Your task to perform on an android device: turn on javascript in the chrome app Image 0: 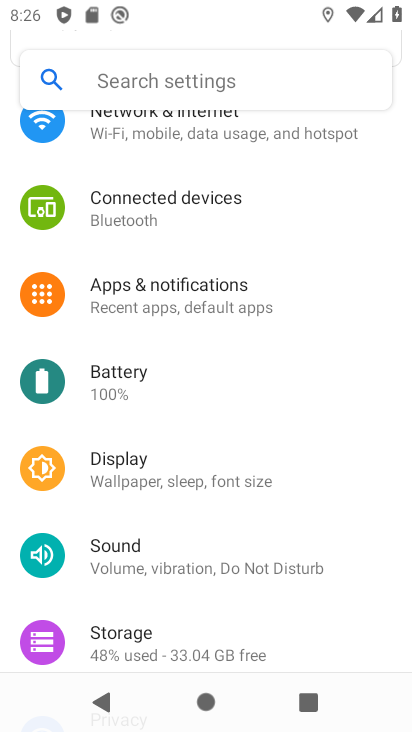
Step 0: press home button
Your task to perform on an android device: turn on javascript in the chrome app Image 1: 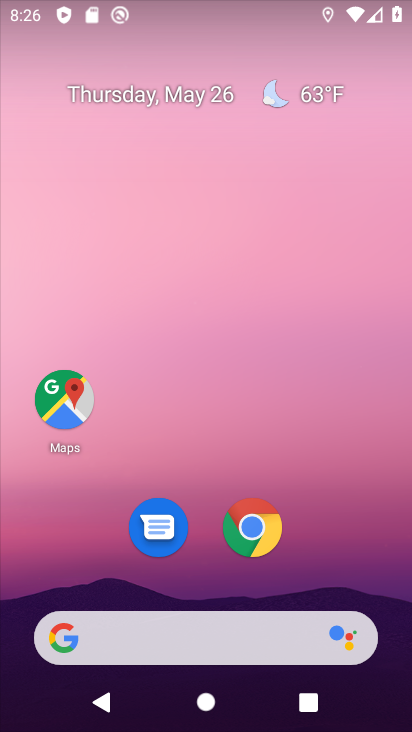
Step 1: drag from (343, 546) to (376, 77)
Your task to perform on an android device: turn on javascript in the chrome app Image 2: 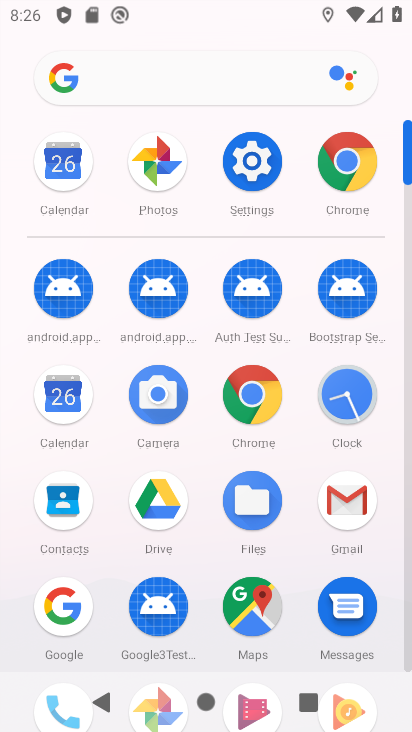
Step 2: click (356, 142)
Your task to perform on an android device: turn on javascript in the chrome app Image 3: 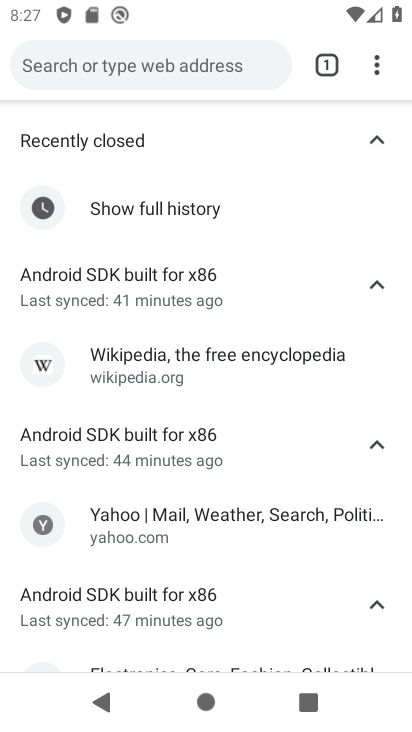
Step 3: drag from (374, 57) to (212, 536)
Your task to perform on an android device: turn on javascript in the chrome app Image 4: 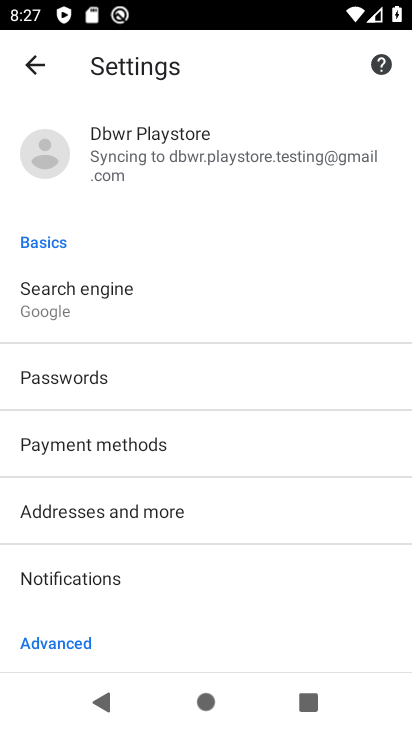
Step 4: drag from (219, 575) to (158, 232)
Your task to perform on an android device: turn on javascript in the chrome app Image 5: 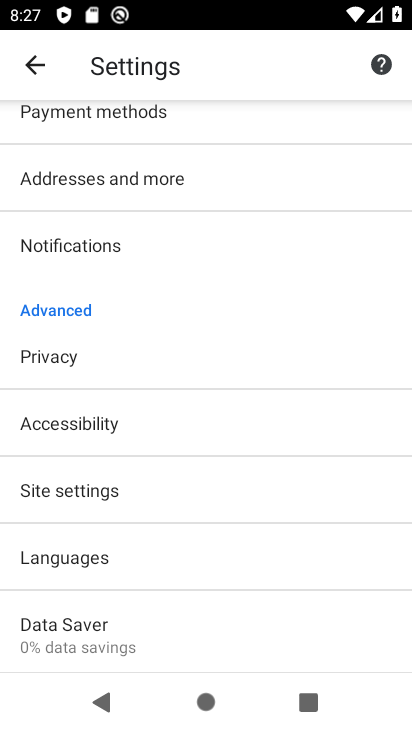
Step 5: click (86, 476)
Your task to perform on an android device: turn on javascript in the chrome app Image 6: 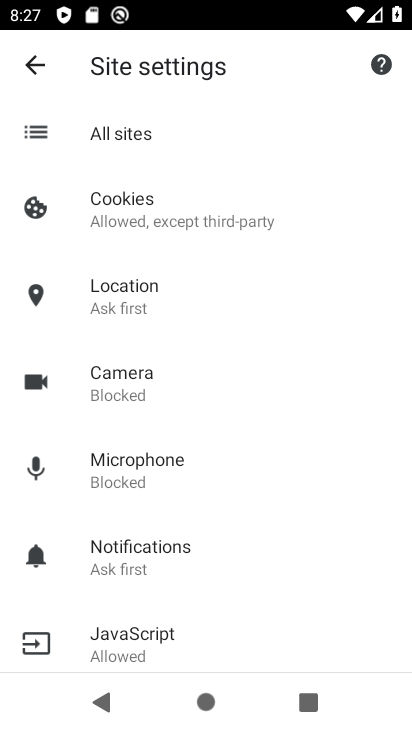
Step 6: drag from (187, 576) to (203, 243)
Your task to perform on an android device: turn on javascript in the chrome app Image 7: 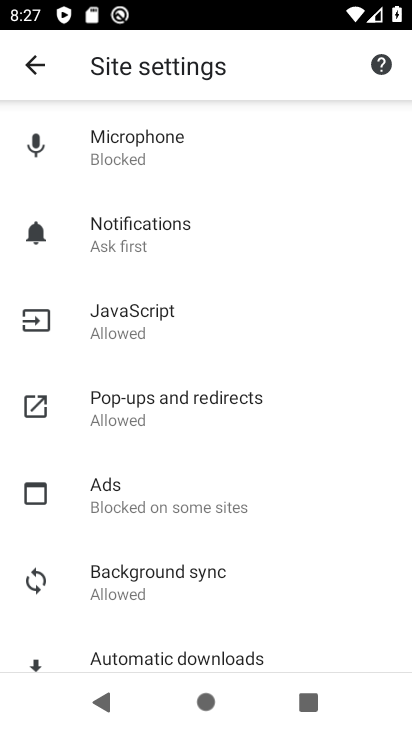
Step 7: click (119, 311)
Your task to perform on an android device: turn on javascript in the chrome app Image 8: 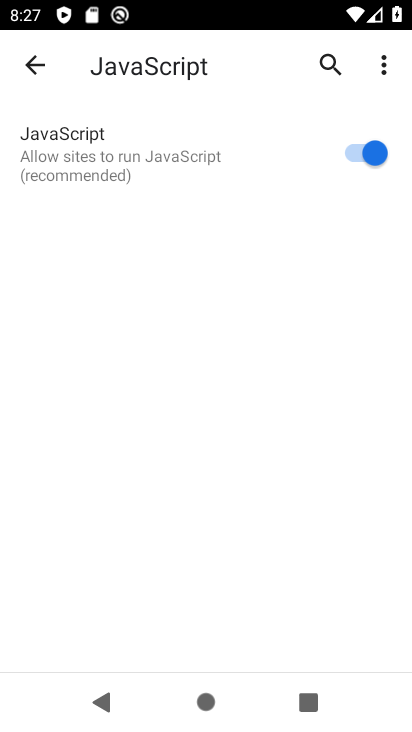
Step 8: task complete